Your task to perform on an android device: change the clock display to digital Image 0: 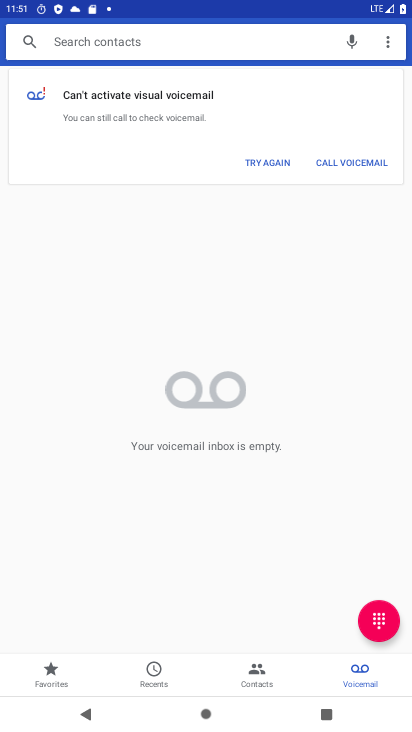
Step 0: press home button
Your task to perform on an android device: change the clock display to digital Image 1: 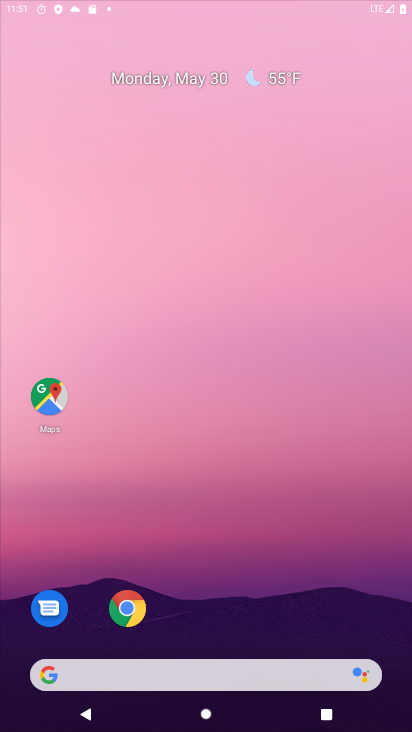
Step 1: click (262, 1)
Your task to perform on an android device: change the clock display to digital Image 2: 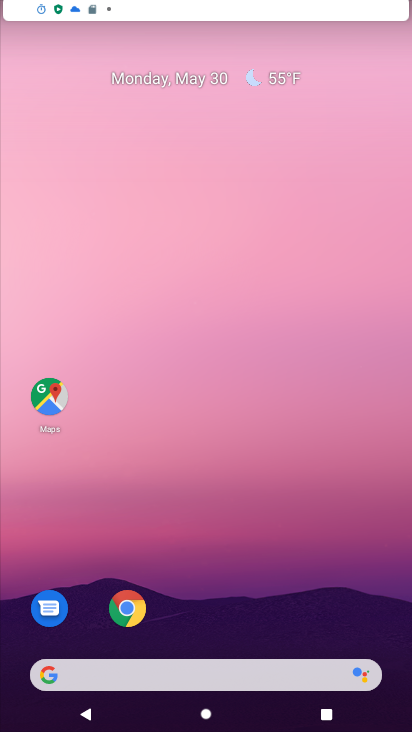
Step 2: drag from (263, 615) to (255, 9)
Your task to perform on an android device: change the clock display to digital Image 3: 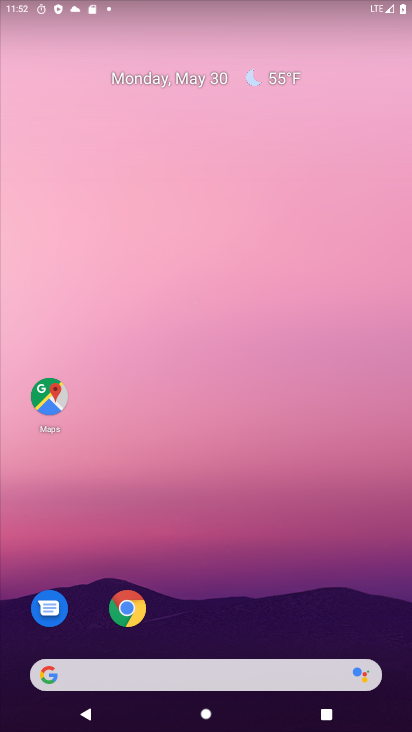
Step 3: drag from (246, 627) to (248, 7)
Your task to perform on an android device: change the clock display to digital Image 4: 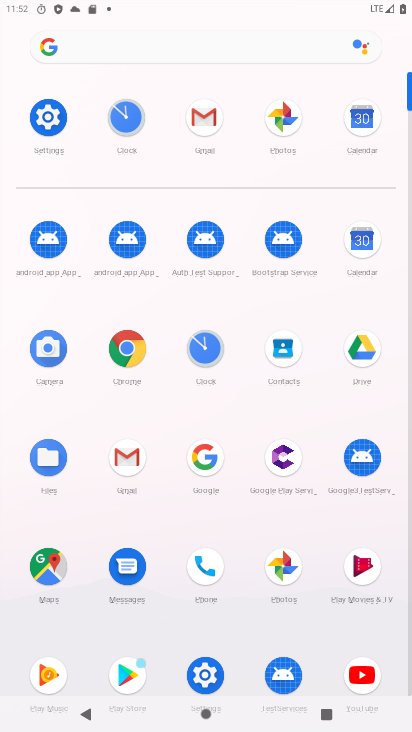
Step 4: click (120, 117)
Your task to perform on an android device: change the clock display to digital Image 5: 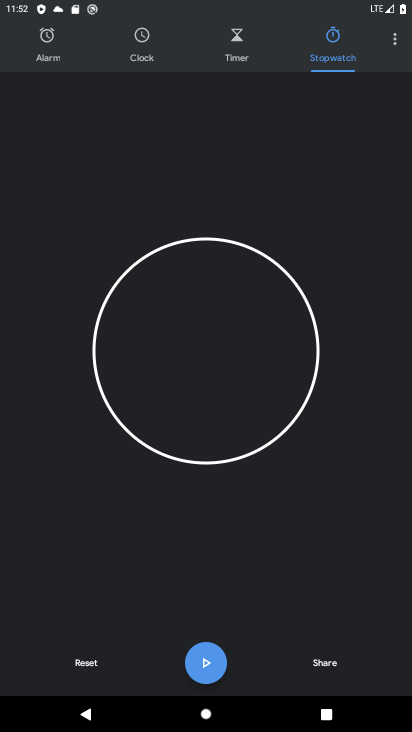
Step 5: click (396, 41)
Your task to perform on an android device: change the clock display to digital Image 6: 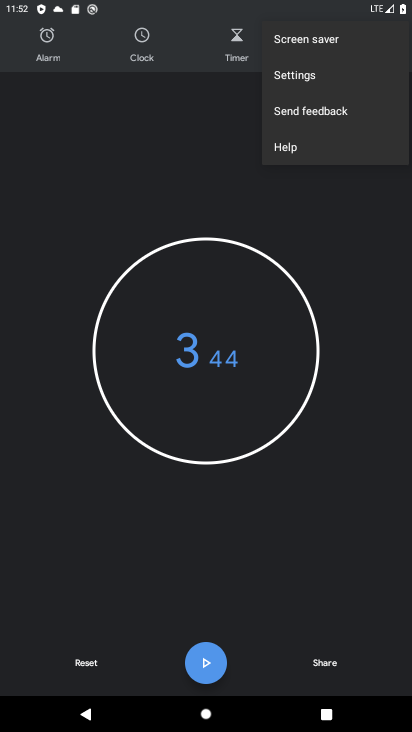
Step 6: click (311, 78)
Your task to perform on an android device: change the clock display to digital Image 7: 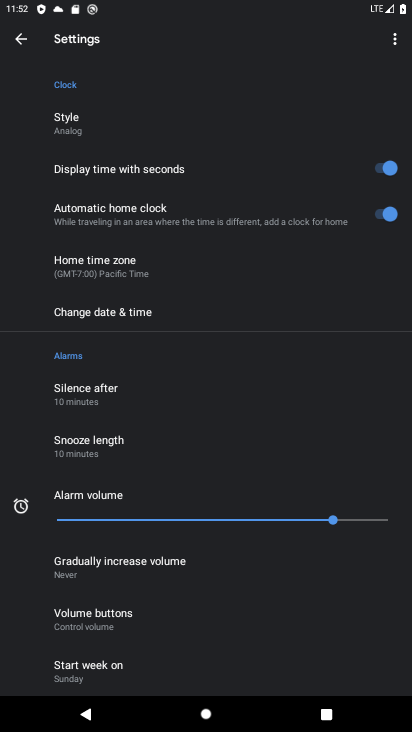
Step 7: click (81, 136)
Your task to perform on an android device: change the clock display to digital Image 8: 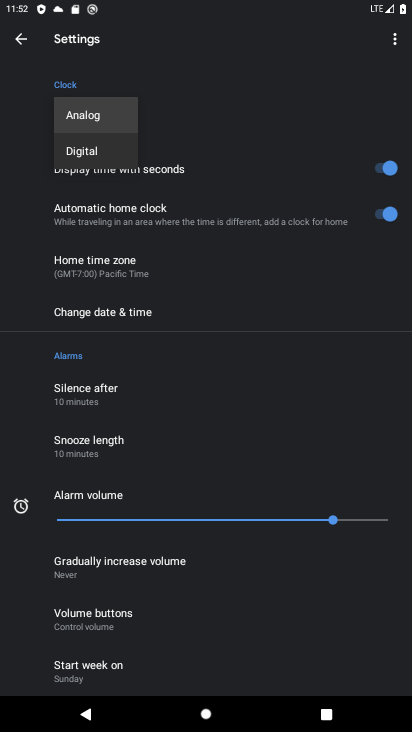
Step 8: click (82, 157)
Your task to perform on an android device: change the clock display to digital Image 9: 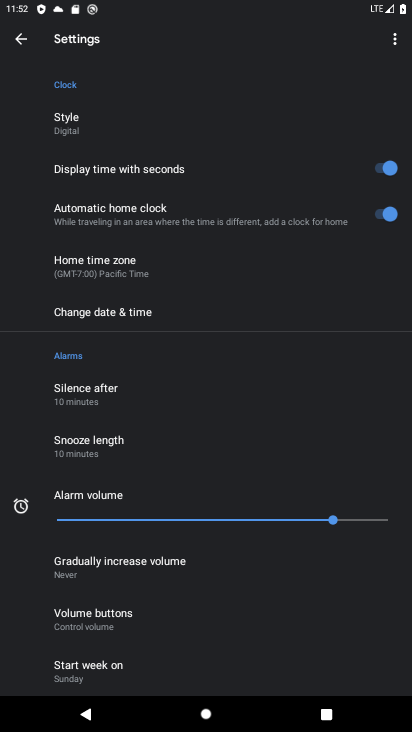
Step 9: task complete